Your task to perform on an android device: turn on translation in the chrome app Image 0: 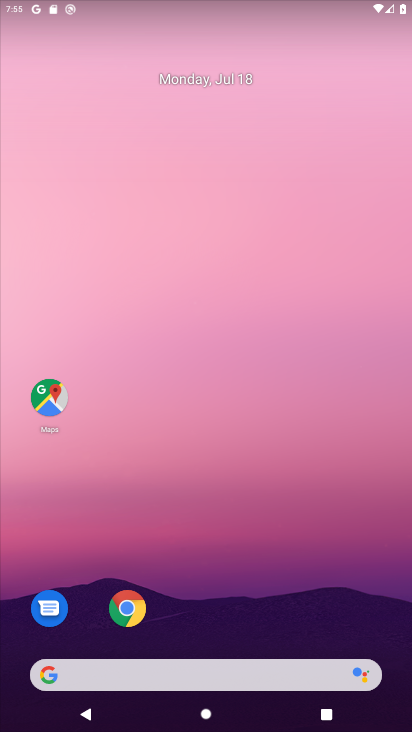
Step 0: drag from (187, 639) to (249, 29)
Your task to perform on an android device: turn on translation in the chrome app Image 1: 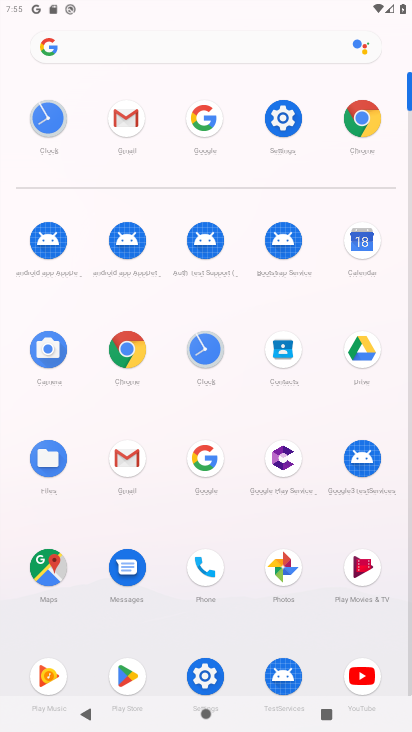
Step 1: click (126, 354)
Your task to perform on an android device: turn on translation in the chrome app Image 2: 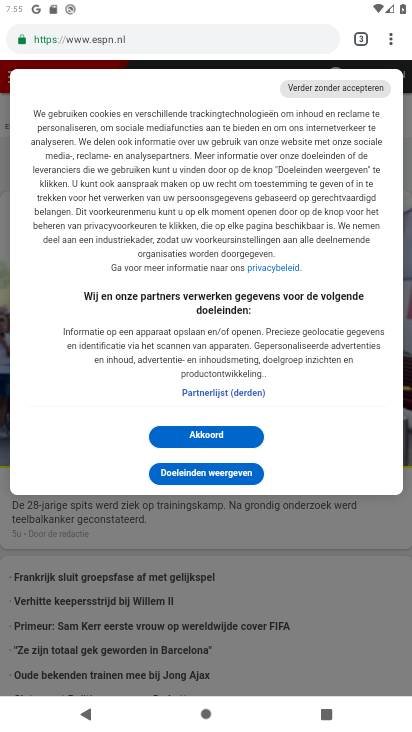
Step 2: click (236, 427)
Your task to perform on an android device: turn on translation in the chrome app Image 3: 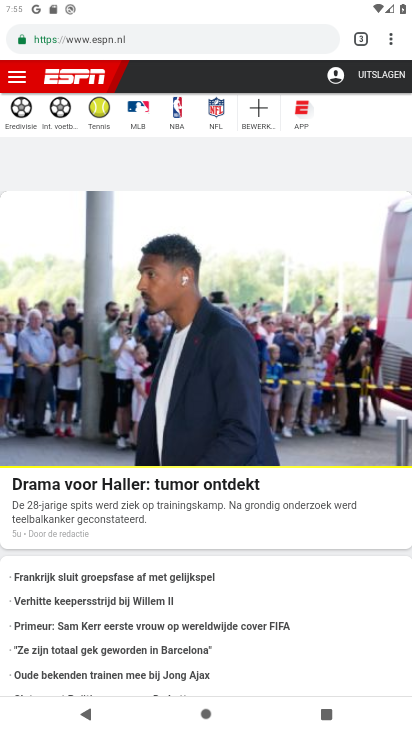
Step 3: drag from (389, 38) to (239, 429)
Your task to perform on an android device: turn on translation in the chrome app Image 4: 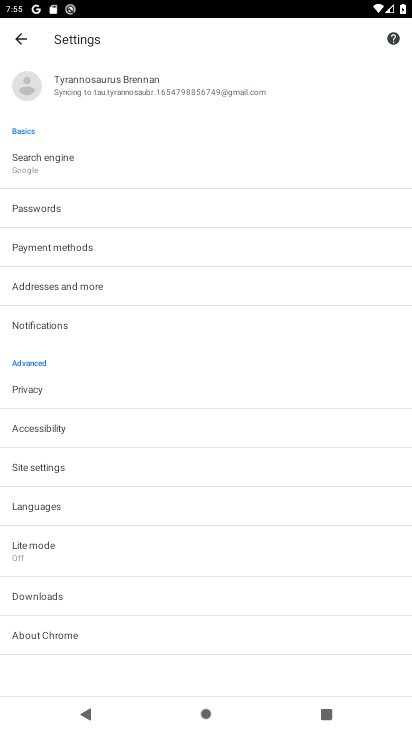
Step 4: click (49, 510)
Your task to perform on an android device: turn on translation in the chrome app Image 5: 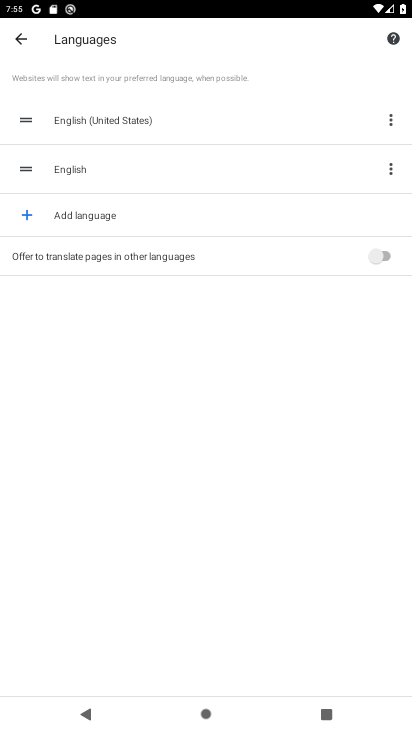
Step 5: click (389, 258)
Your task to perform on an android device: turn on translation in the chrome app Image 6: 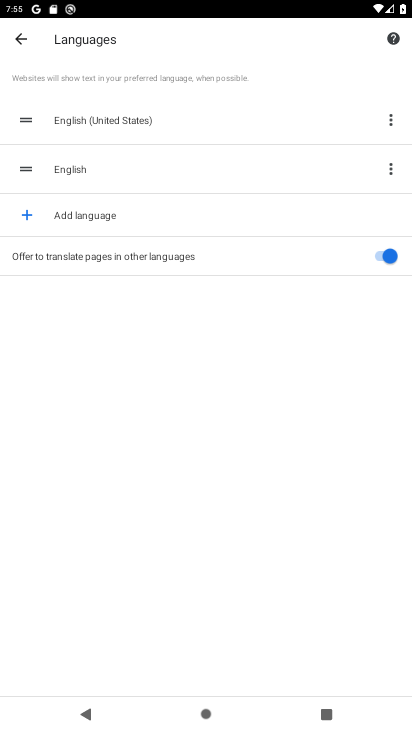
Step 6: task complete